Your task to perform on an android device: Open Google Maps Image 0: 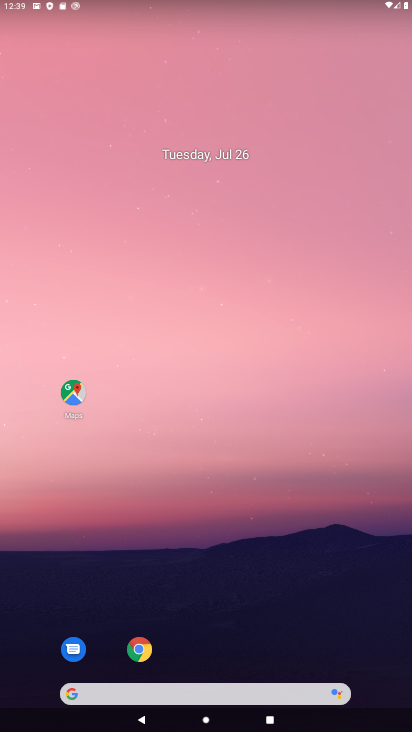
Step 0: click (77, 405)
Your task to perform on an android device: Open Google Maps Image 1: 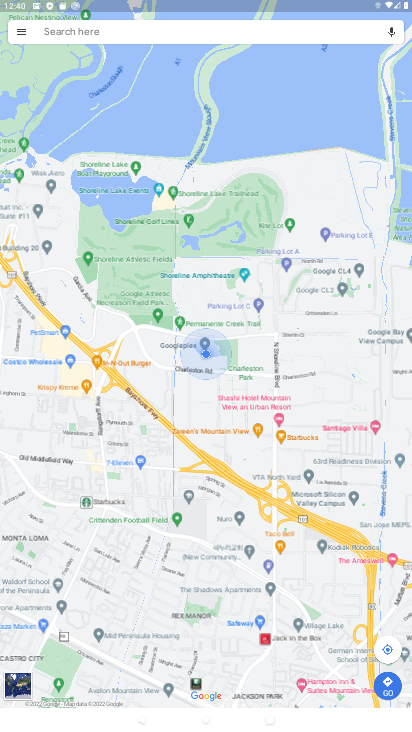
Step 1: task complete